Your task to perform on an android device: change timer sound Image 0: 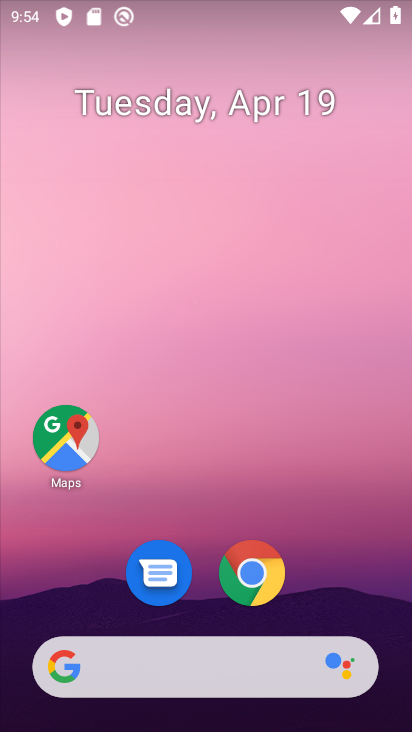
Step 0: drag from (366, 582) to (385, 126)
Your task to perform on an android device: change timer sound Image 1: 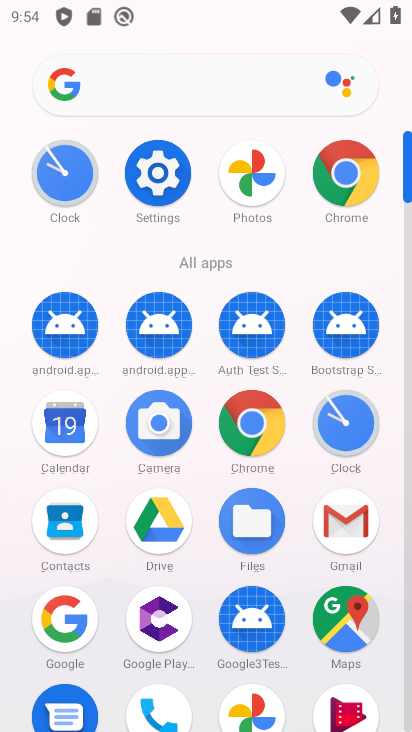
Step 1: click (349, 419)
Your task to perform on an android device: change timer sound Image 2: 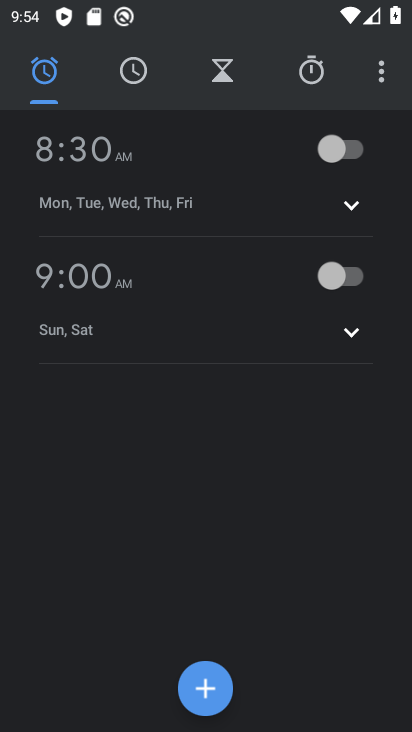
Step 2: click (383, 76)
Your task to perform on an android device: change timer sound Image 3: 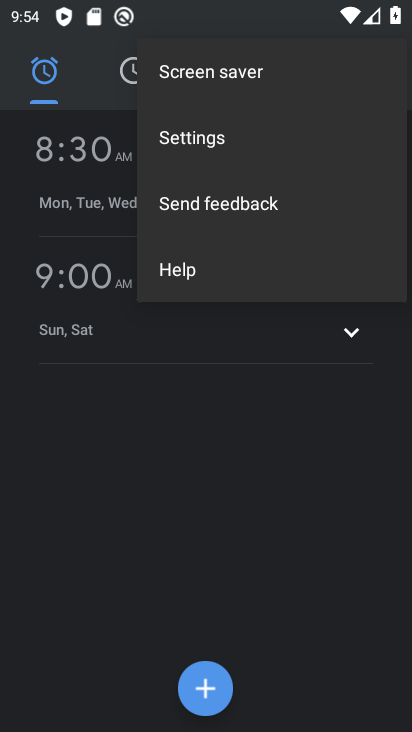
Step 3: click (234, 135)
Your task to perform on an android device: change timer sound Image 4: 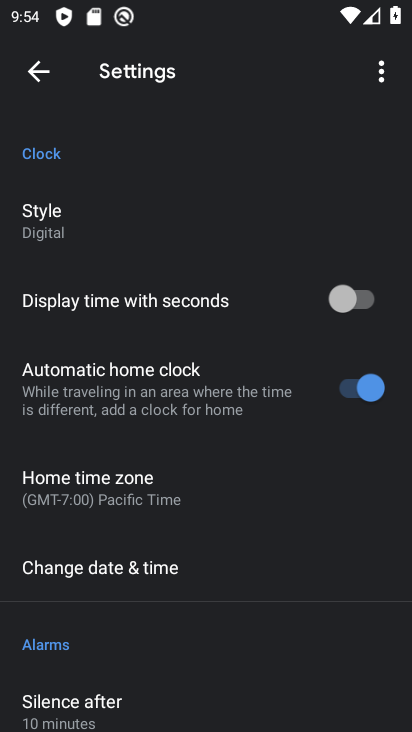
Step 4: drag from (305, 585) to (308, 335)
Your task to perform on an android device: change timer sound Image 5: 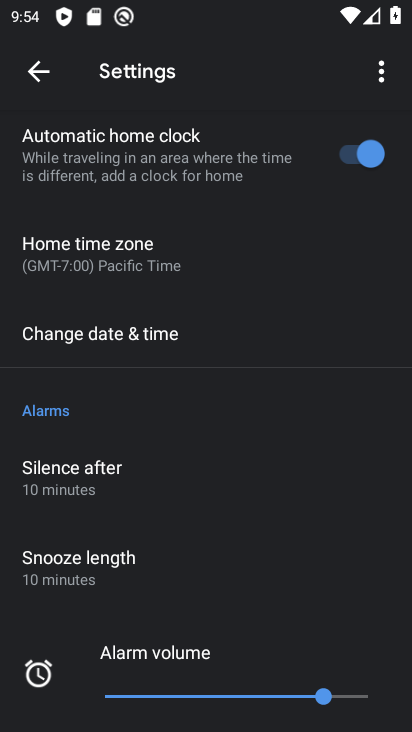
Step 5: drag from (298, 548) to (325, 311)
Your task to perform on an android device: change timer sound Image 6: 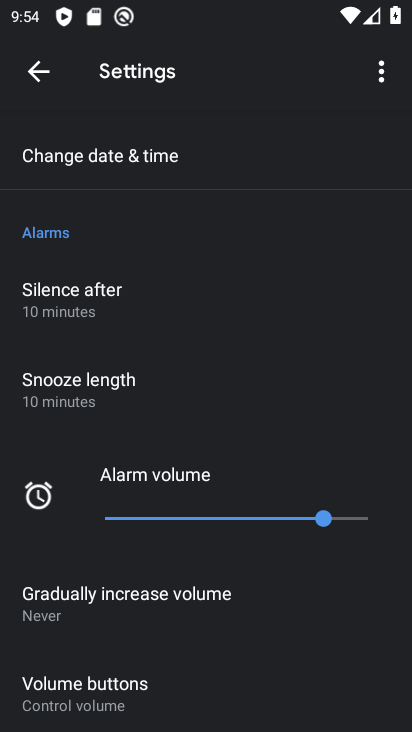
Step 6: drag from (345, 615) to (361, 354)
Your task to perform on an android device: change timer sound Image 7: 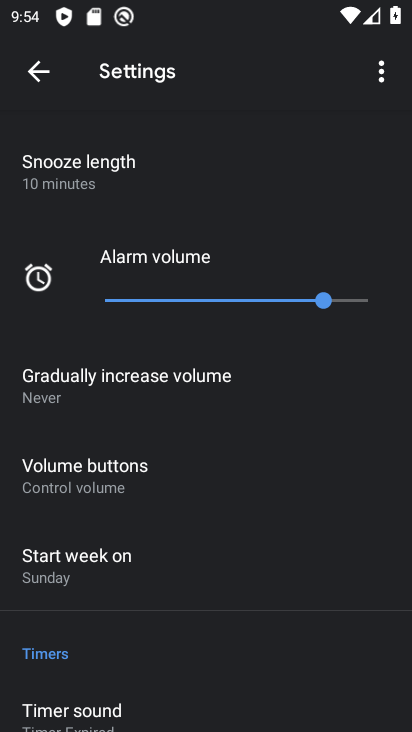
Step 7: drag from (343, 590) to (363, 329)
Your task to perform on an android device: change timer sound Image 8: 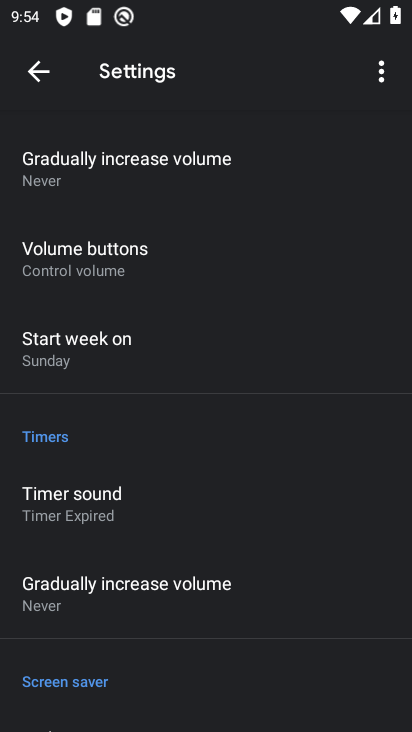
Step 8: click (101, 502)
Your task to perform on an android device: change timer sound Image 9: 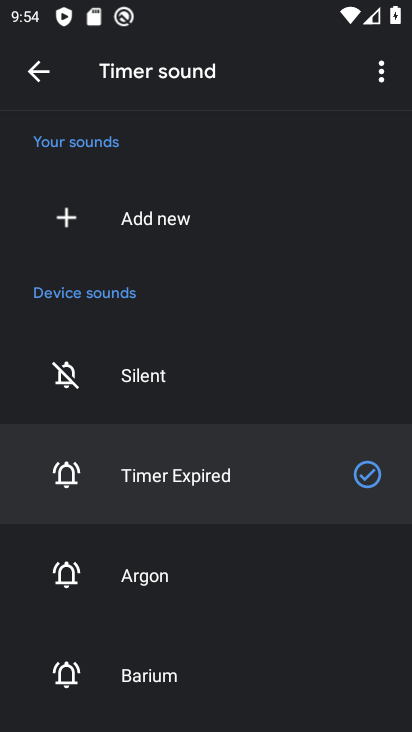
Step 9: click (155, 581)
Your task to perform on an android device: change timer sound Image 10: 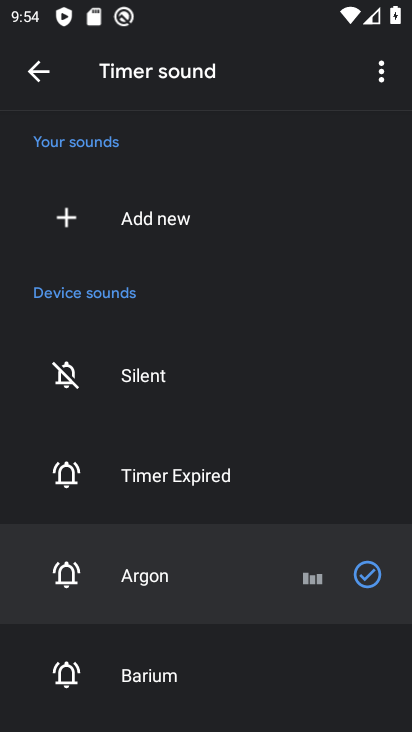
Step 10: task complete